Your task to perform on an android device: Add acer predator to the cart on ebay.com Image 0: 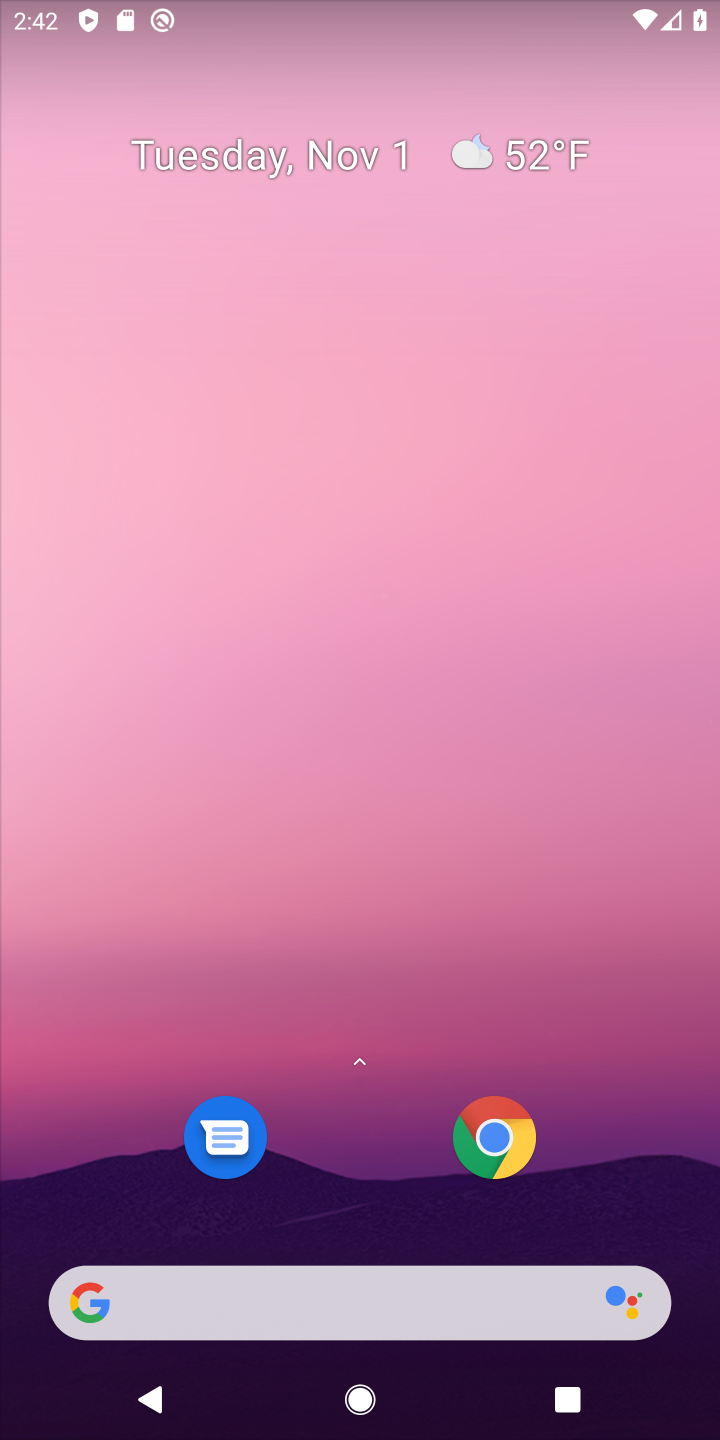
Step 0: click (371, 1325)
Your task to perform on an android device: Add acer predator to the cart on ebay.com Image 1: 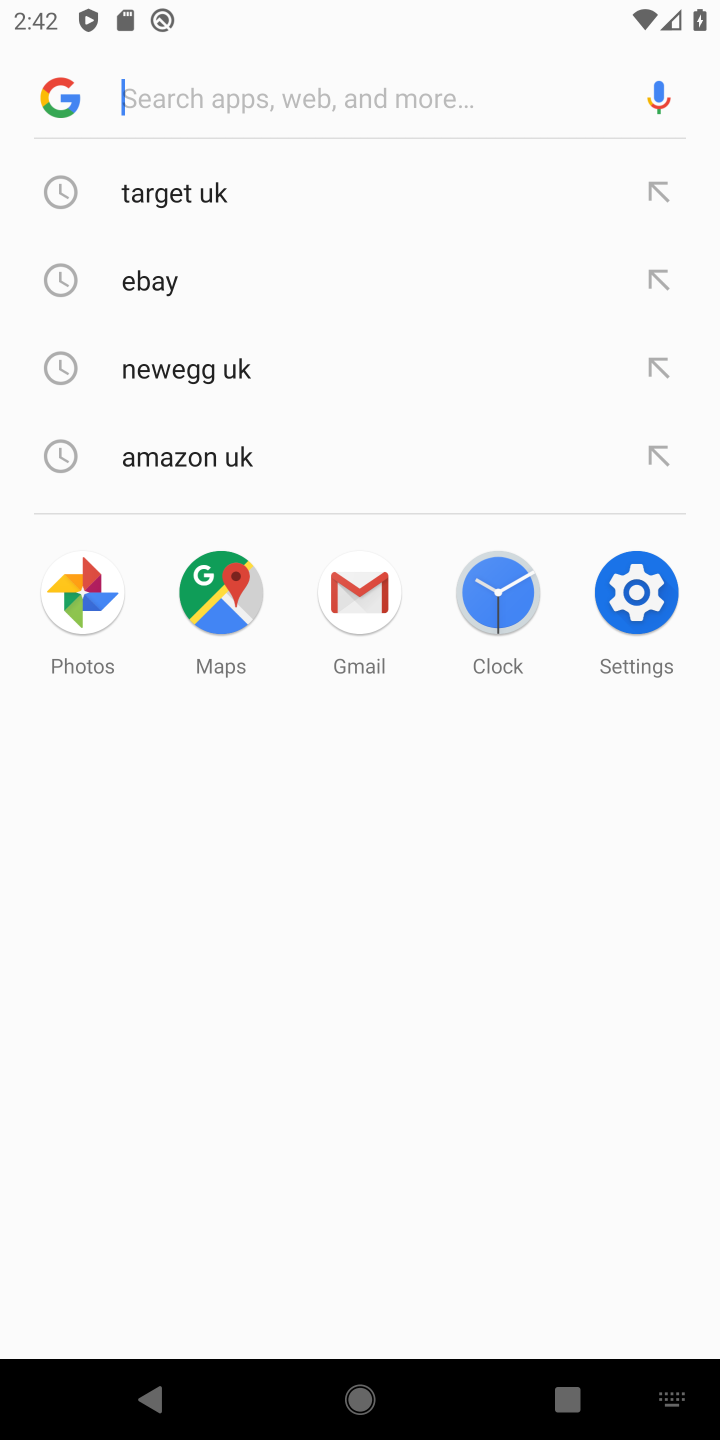
Step 1: task complete